Your task to perform on an android device: Open Chrome and go to settings Image 0: 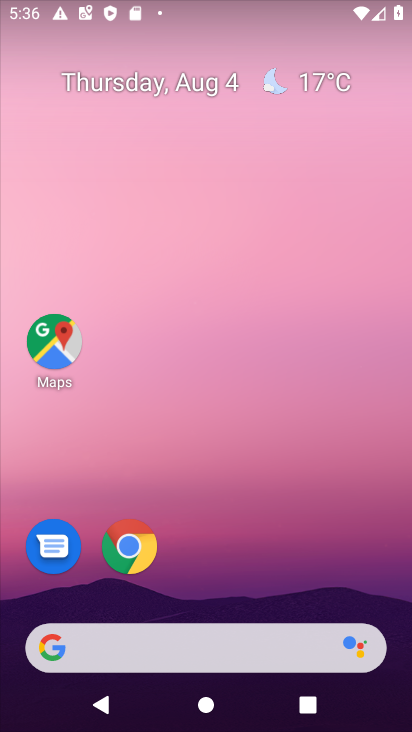
Step 0: click (135, 551)
Your task to perform on an android device: Open Chrome and go to settings Image 1: 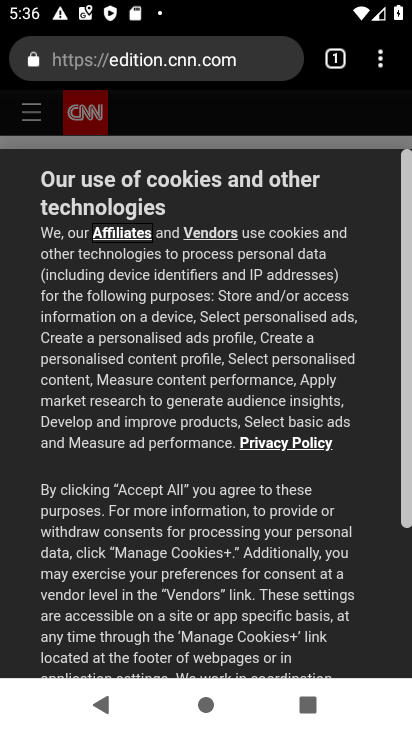
Step 1: click (377, 56)
Your task to perform on an android device: Open Chrome and go to settings Image 2: 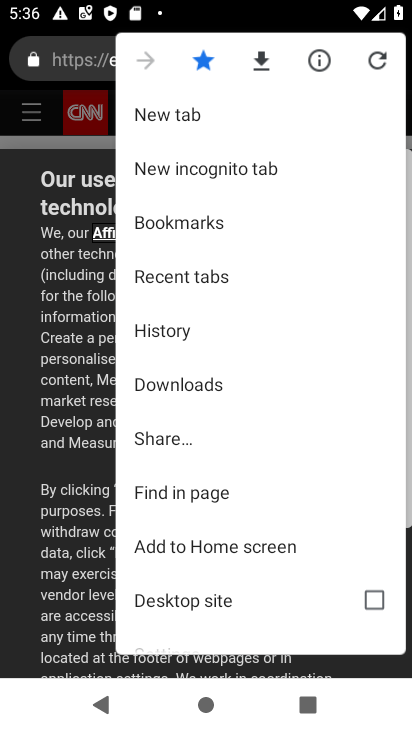
Step 2: drag from (250, 565) to (241, 284)
Your task to perform on an android device: Open Chrome and go to settings Image 3: 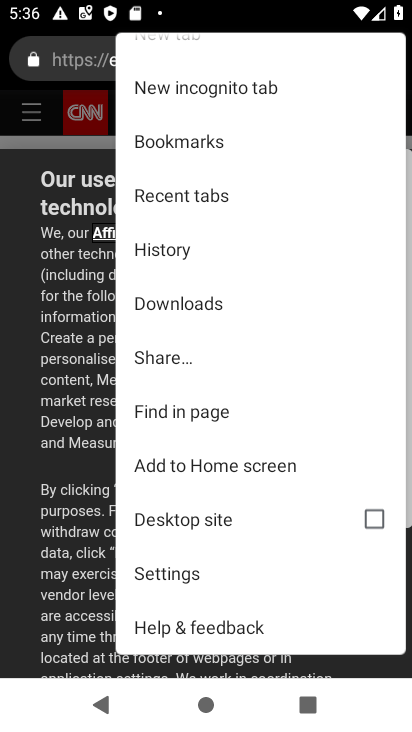
Step 3: click (170, 565)
Your task to perform on an android device: Open Chrome and go to settings Image 4: 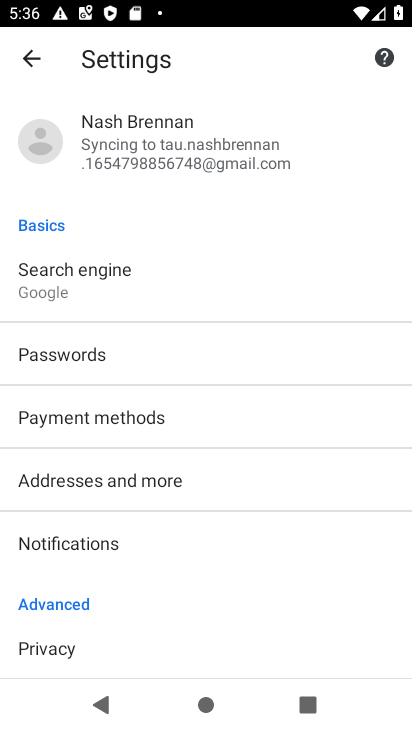
Step 4: task complete